Your task to perform on an android device: What's the weather? Image 0: 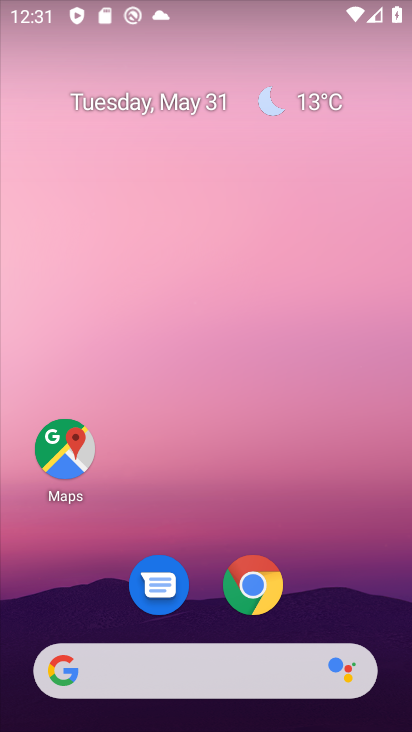
Step 0: click (187, 675)
Your task to perform on an android device: What's the weather? Image 1: 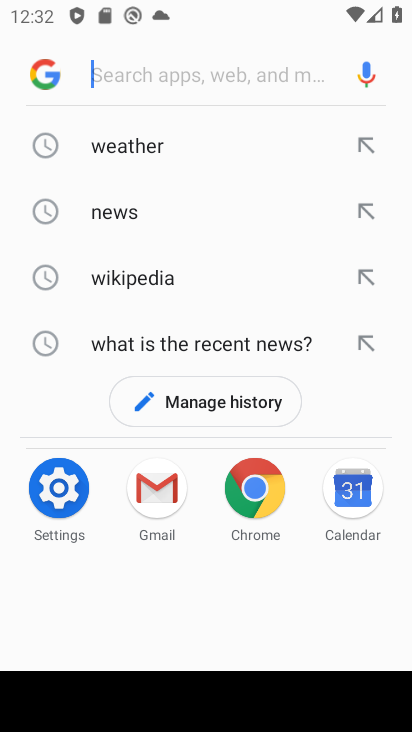
Step 1: click (126, 132)
Your task to perform on an android device: What's the weather? Image 2: 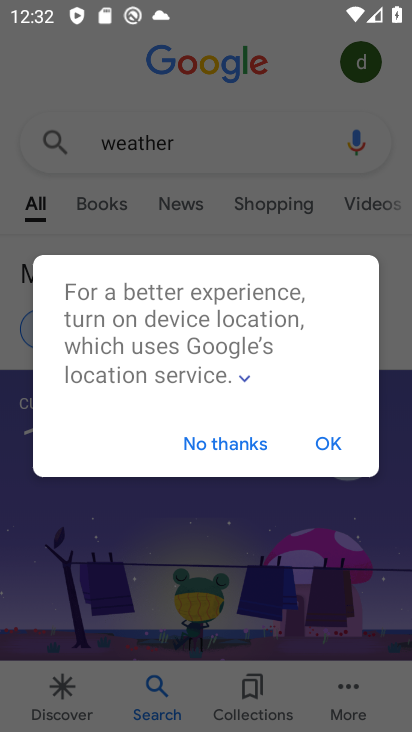
Step 2: click (336, 437)
Your task to perform on an android device: What's the weather? Image 3: 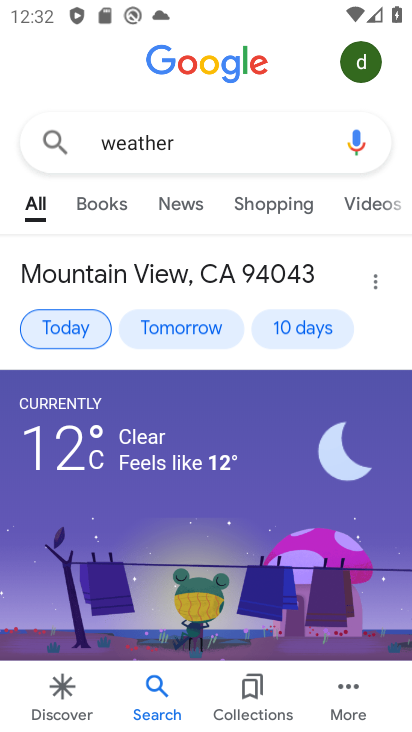
Step 3: click (81, 333)
Your task to perform on an android device: What's the weather? Image 4: 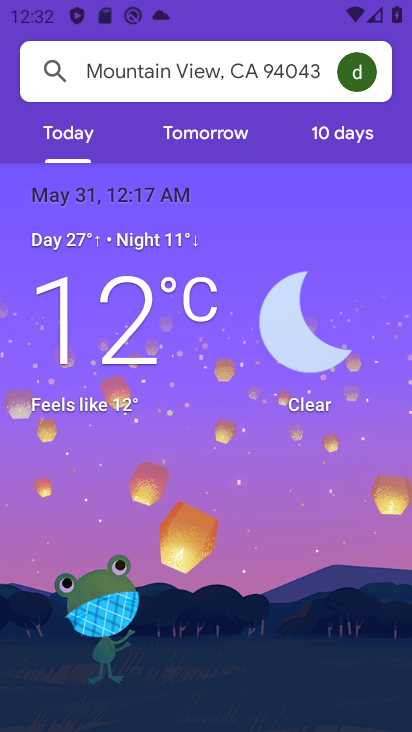
Step 4: task complete